Your task to perform on an android device: Open accessibility settings Image 0: 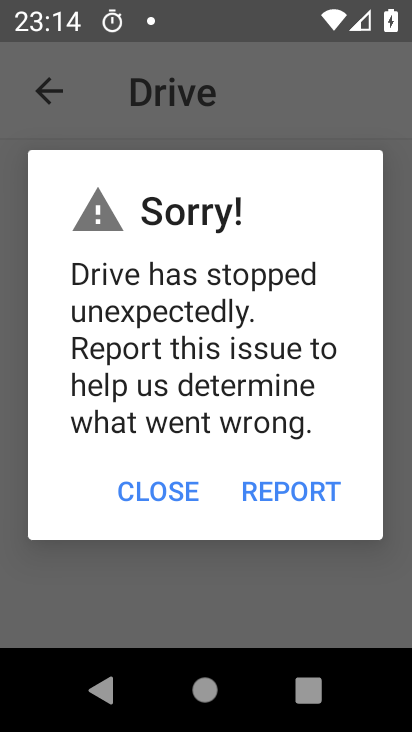
Step 0: press home button
Your task to perform on an android device: Open accessibility settings Image 1: 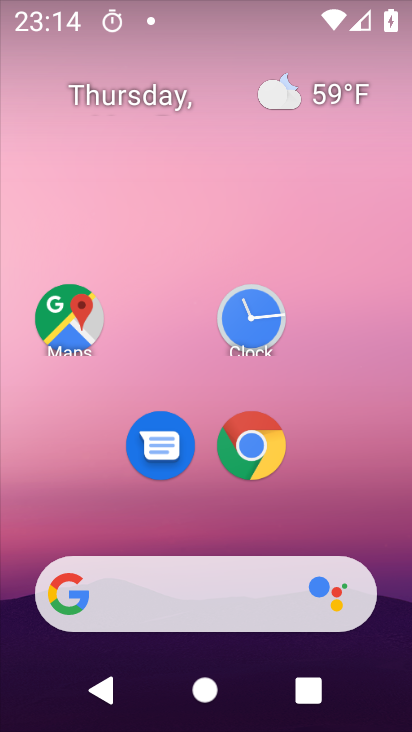
Step 1: drag from (207, 602) to (115, 40)
Your task to perform on an android device: Open accessibility settings Image 2: 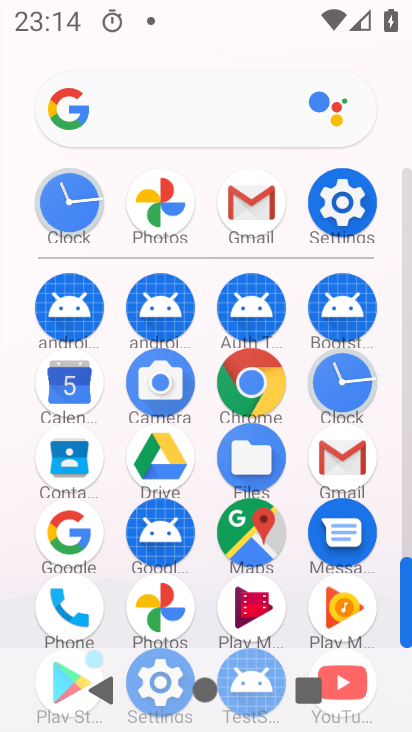
Step 2: click (317, 197)
Your task to perform on an android device: Open accessibility settings Image 3: 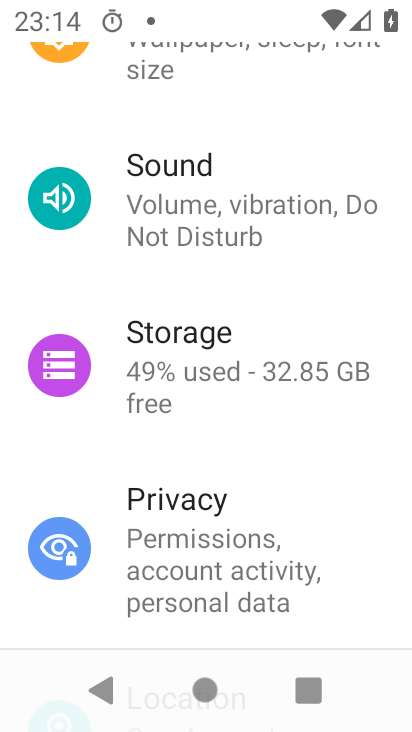
Step 3: drag from (277, 619) to (258, 196)
Your task to perform on an android device: Open accessibility settings Image 4: 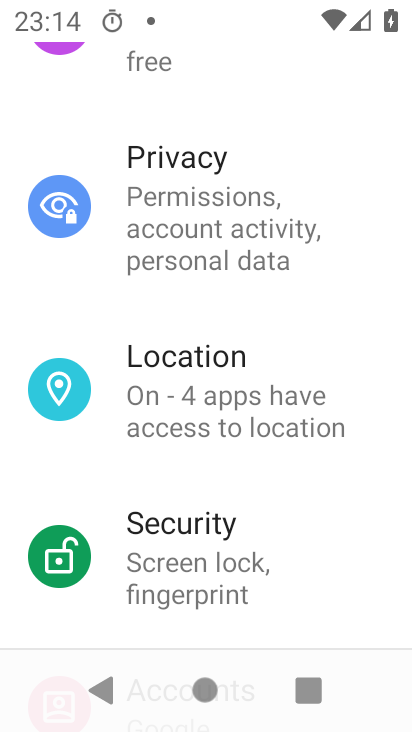
Step 4: drag from (214, 549) to (162, 100)
Your task to perform on an android device: Open accessibility settings Image 5: 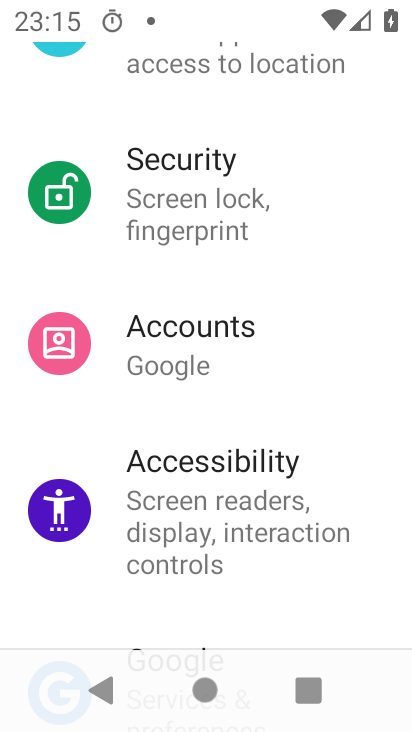
Step 5: click (252, 514)
Your task to perform on an android device: Open accessibility settings Image 6: 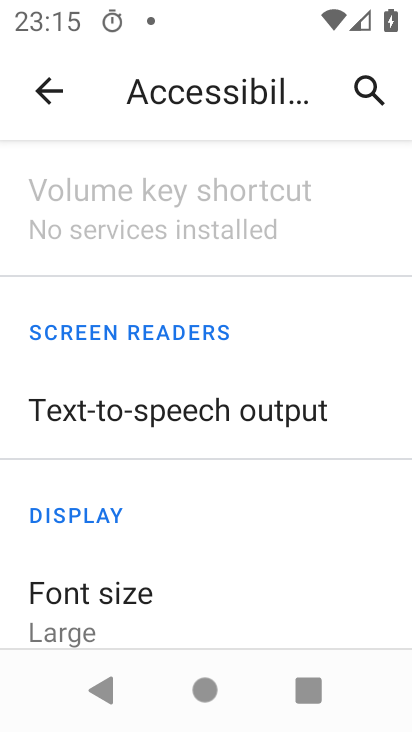
Step 6: task complete